Your task to perform on an android device: Open the Play Movies app and select the watchlist tab. Image 0: 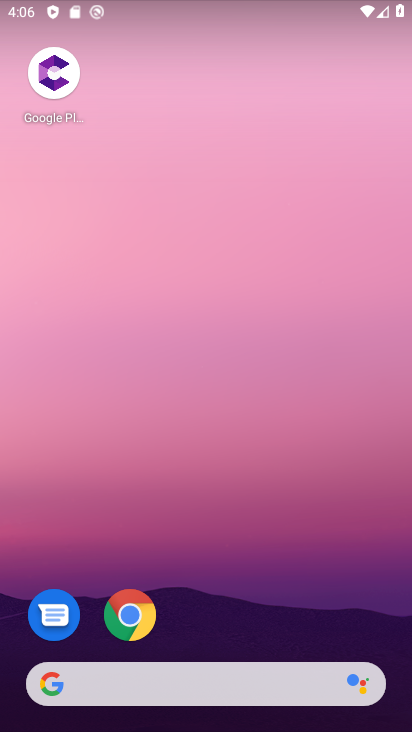
Step 0: drag from (271, 546) to (256, 21)
Your task to perform on an android device: Open the Play Movies app and select the watchlist tab. Image 1: 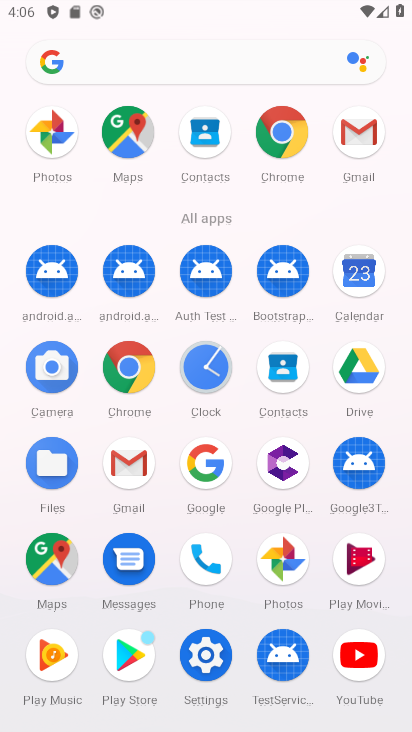
Step 1: click (360, 561)
Your task to perform on an android device: Open the Play Movies app and select the watchlist tab. Image 2: 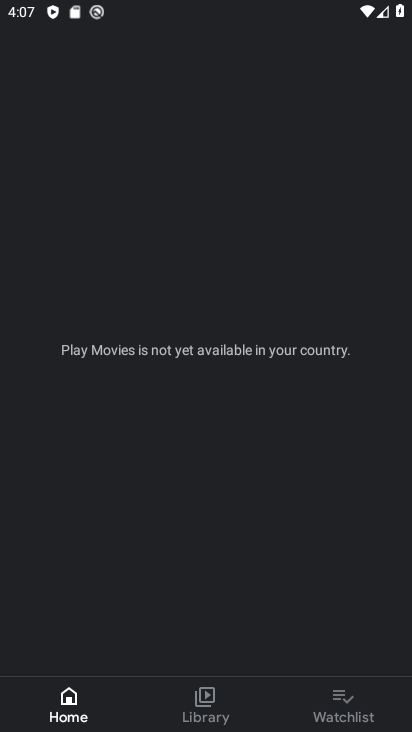
Step 2: click (343, 706)
Your task to perform on an android device: Open the Play Movies app and select the watchlist tab. Image 3: 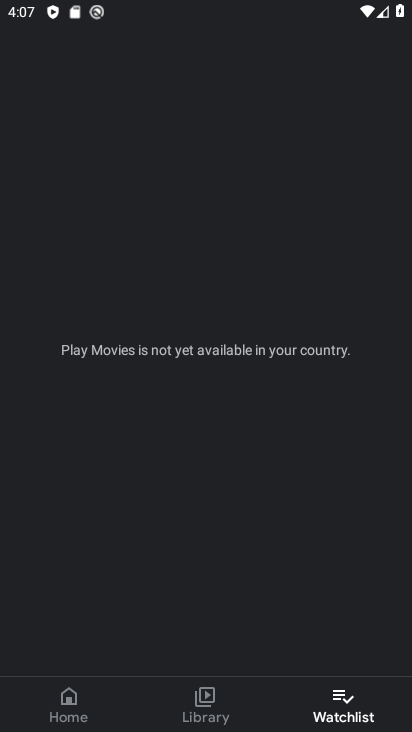
Step 3: task complete